Your task to perform on an android device: choose inbox layout in the gmail app Image 0: 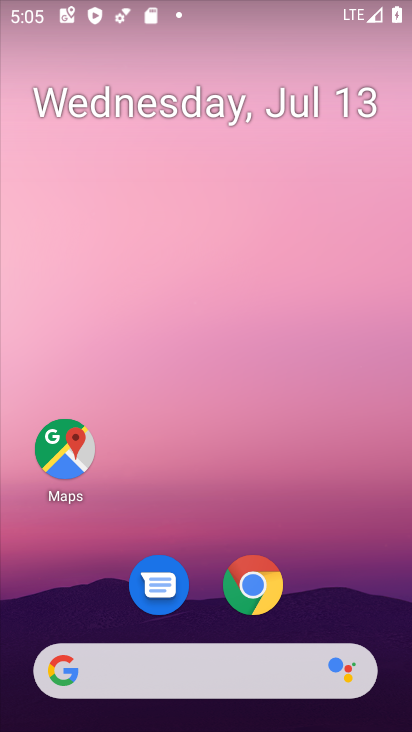
Step 0: drag from (325, 581) to (352, 22)
Your task to perform on an android device: choose inbox layout in the gmail app Image 1: 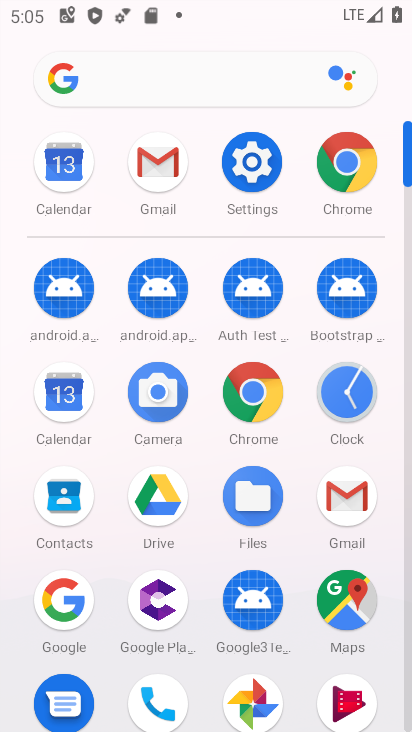
Step 1: click (161, 168)
Your task to perform on an android device: choose inbox layout in the gmail app Image 2: 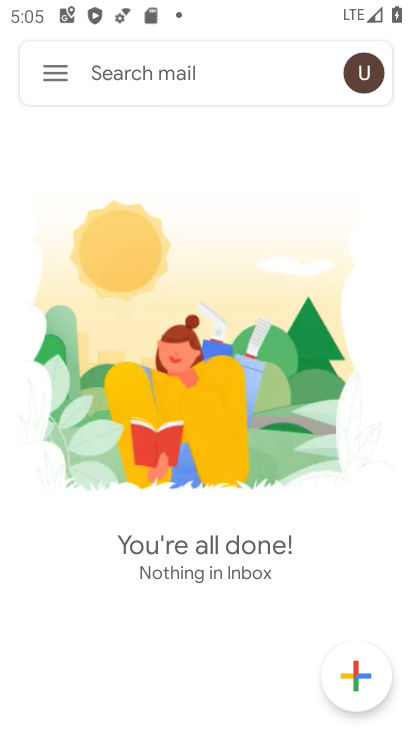
Step 2: click (50, 69)
Your task to perform on an android device: choose inbox layout in the gmail app Image 3: 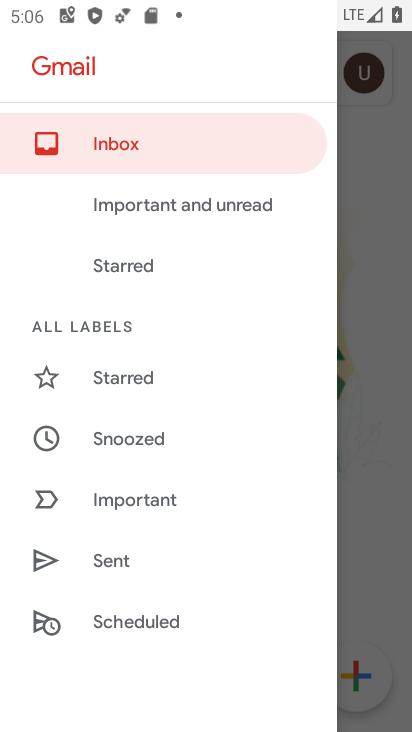
Step 3: drag from (158, 590) to (210, 2)
Your task to perform on an android device: choose inbox layout in the gmail app Image 4: 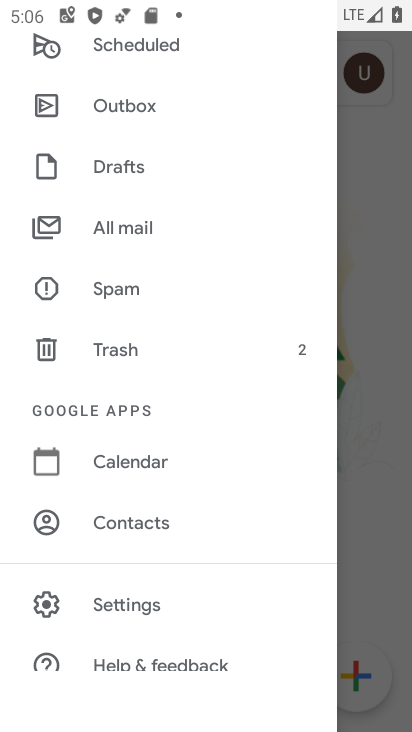
Step 4: click (143, 600)
Your task to perform on an android device: choose inbox layout in the gmail app Image 5: 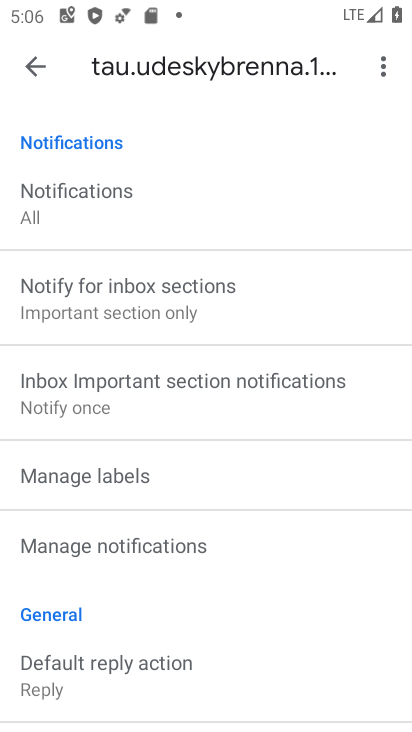
Step 5: drag from (239, 606) to (305, 126)
Your task to perform on an android device: choose inbox layout in the gmail app Image 6: 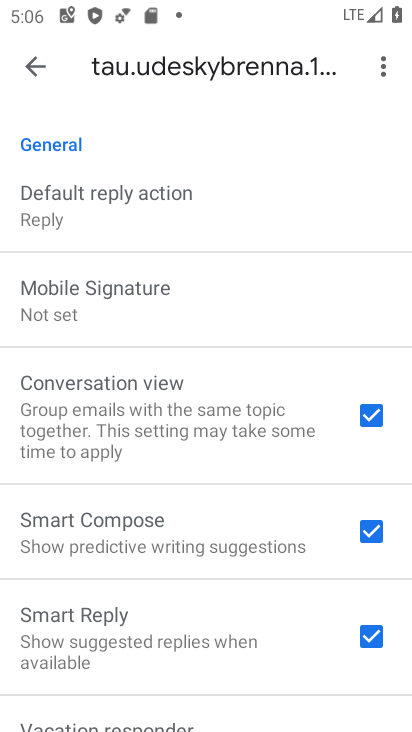
Step 6: drag from (222, 665) to (254, 284)
Your task to perform on an android device: choose inbox layout in the gmail app Image 7: 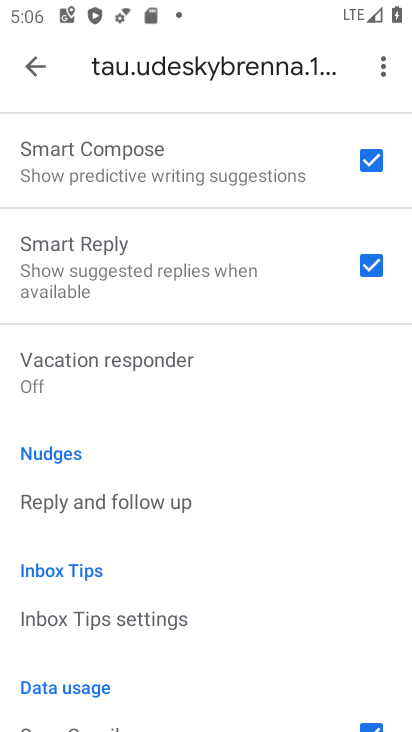
Step 7: drag from (221, 550) to (243, 651)
Your task to perform on an android device: choose inbox layout in the gmail app Image 8: 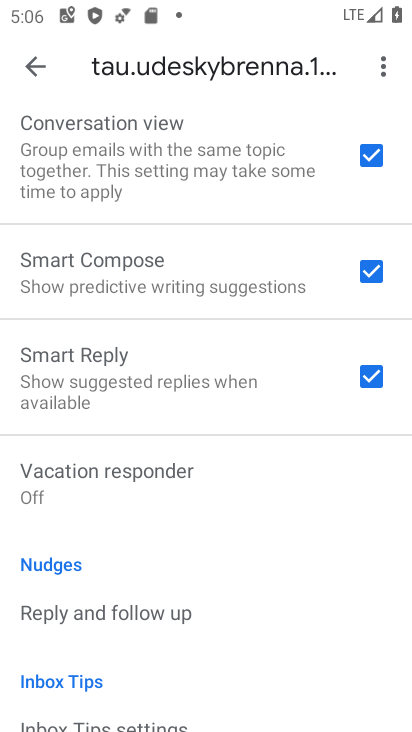
Step 8: drag from (198, 190) to (206, 682)
Your task to perform on an android device: choose inbox layout in the gmail app Image 9: 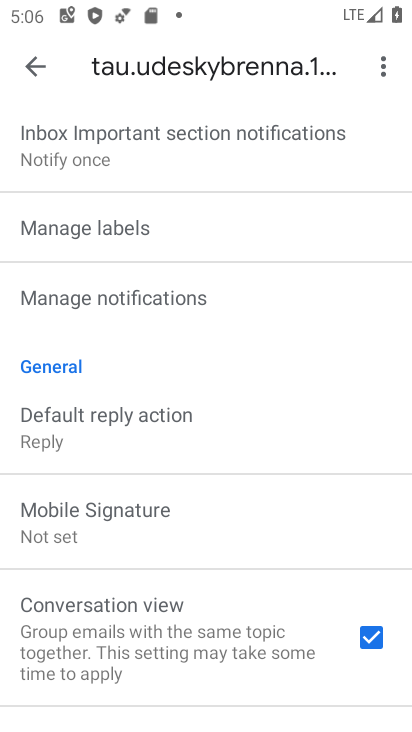
Step 9: drag from (214, 222) to (237, 584)
Your task to perform on an android device: choose inbox layout in the gmail app Image 10: 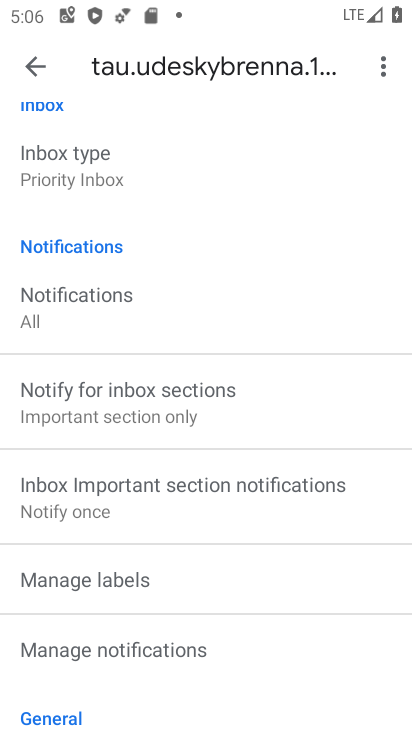
Step 10: click (99, 161)
Your task to perform on an android device: choose inbox layout in the gmail app Image 11: 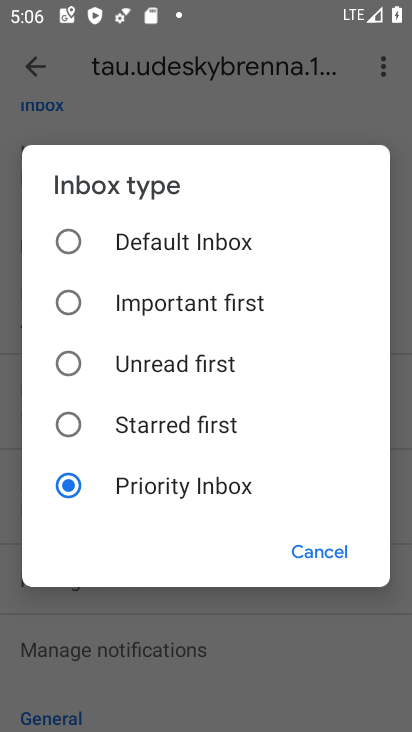
Step 11: click (69, 240)
Your task to perform on an android device: choose inbox layout in the gmail app Image 12: 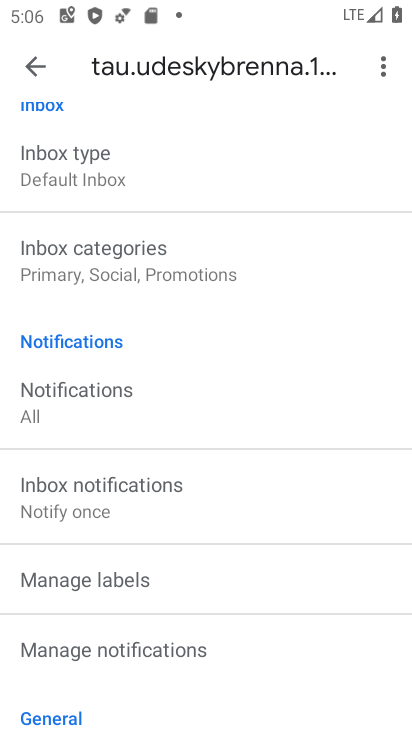
Step 12: task complete